Your task to perform on an android device: find snoozed emails in the gmail app Image 0: 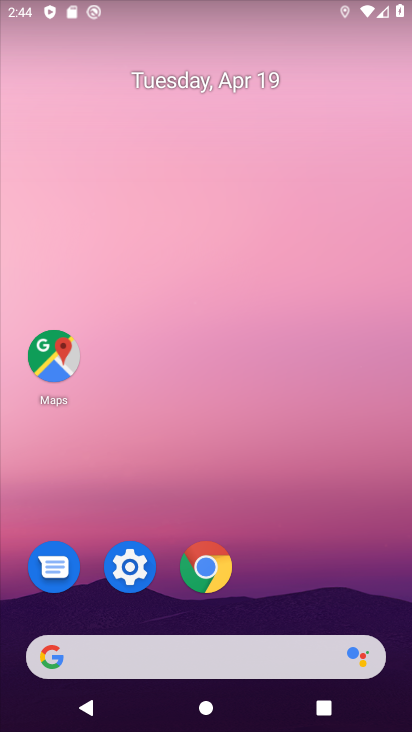
Step 0: drag from (293, 468) to (191, 101)
Your task to perform on an android device: find snoozed emails in the gmail app Image 1: 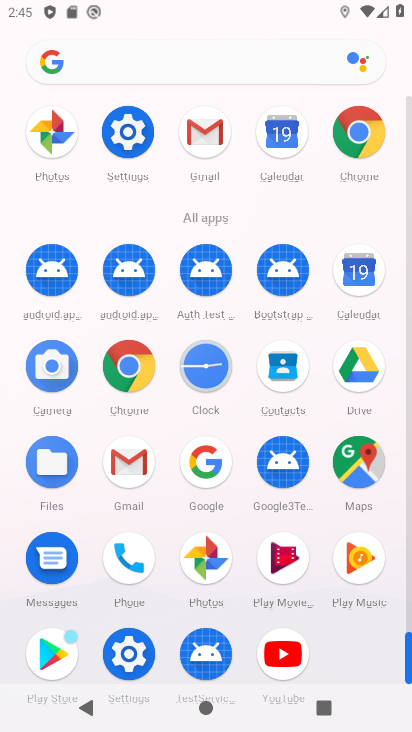
Step 1: click (183, 128)
Your task to perform on an android device: find snoozed emails in the gmail app Image 2: 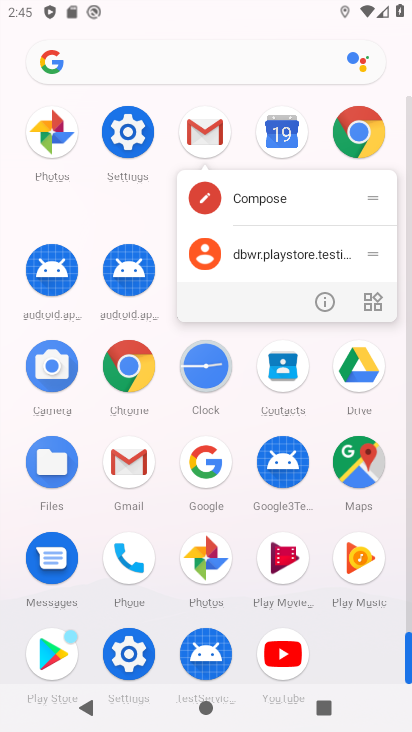
Step 2: click (200, 130)
Your task to perform on an android device: find snoozed emails in the gmail app Image 3: 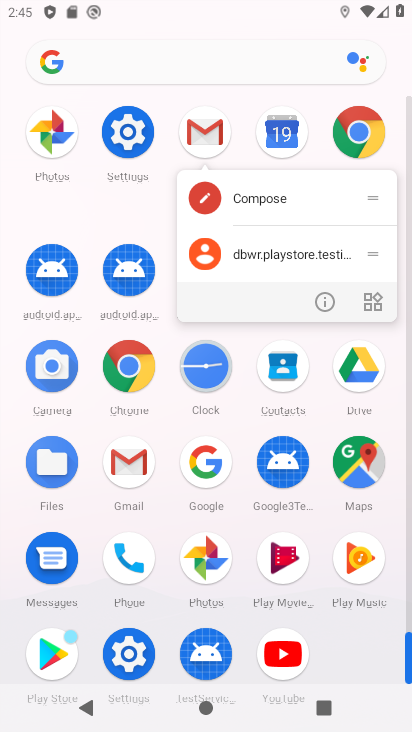
Step 3: click (200, 130)
Your task to perform on an android device: find snoozed emails in the gmail app Image 4: 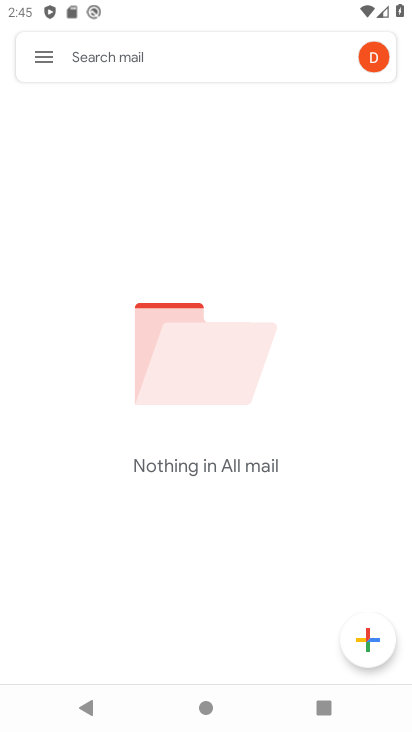
Step 4: task complete